Your task to perform on an android device: turn on improve location accuracy Image 0: 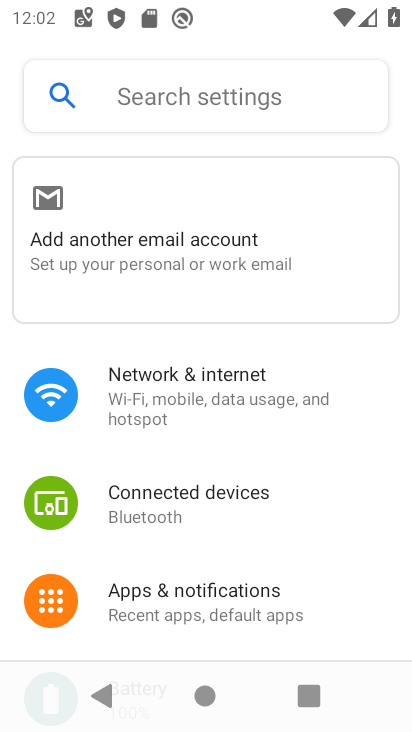
Step 0: press home button
Your task to perform on an android device: turn on improve location accuracy Image 1: 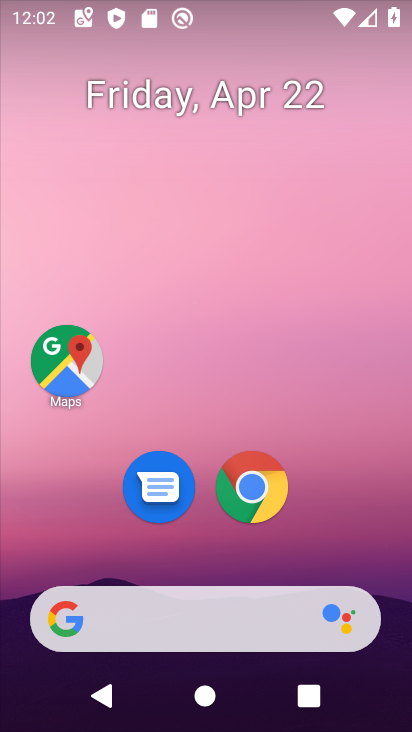
Step 1: drag from (205, 560) to (213, 75)
Your task to perform on an android device: turn on improve location accuracy Image 2: 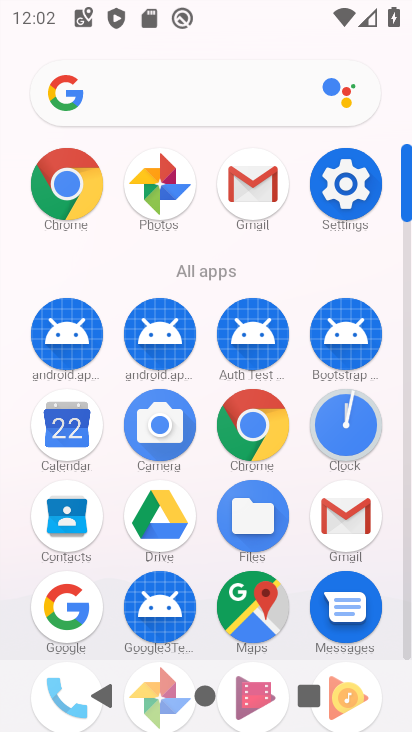
Step 2: drag from (315, 555) to (276, 129)
Your task to perform on an android device: turn on improve location accuracy Image 3: 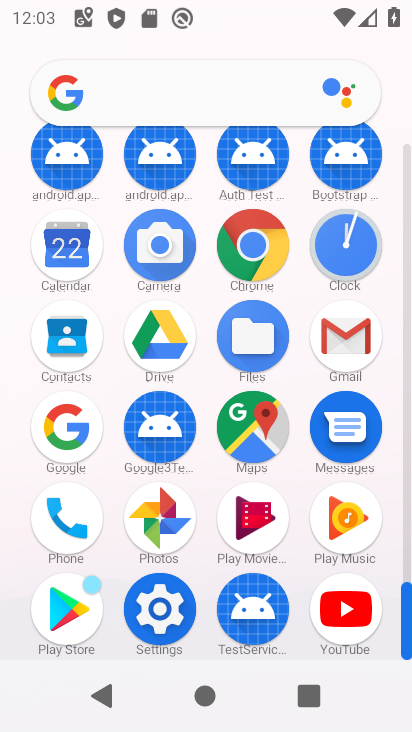
Step 3: click (264, 426)
Your task to perform on an android device: turn on improve location accuracy Image 4: 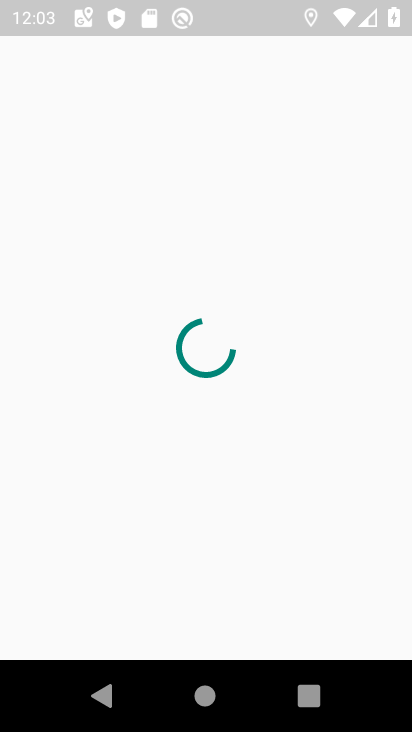
Step 4: click (62, 86)
Your task to perform on an android device: turn on improve location accuracy Image 5: 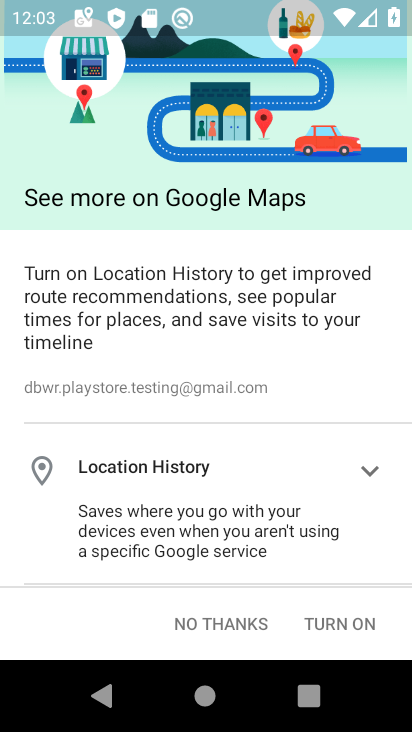
Step 5: click (330, 639)
Your task to perform on an android device: turn on improve location accuracy Image 6: 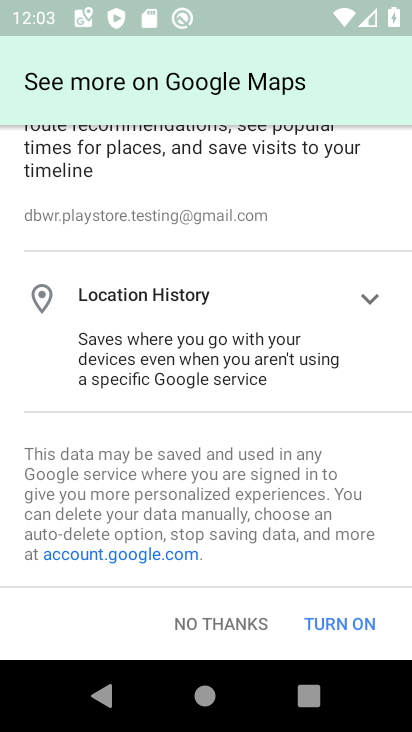
Step 6: click (330, 639)
Your task to perform on an android device: turn on improve location accuracy Image 7: 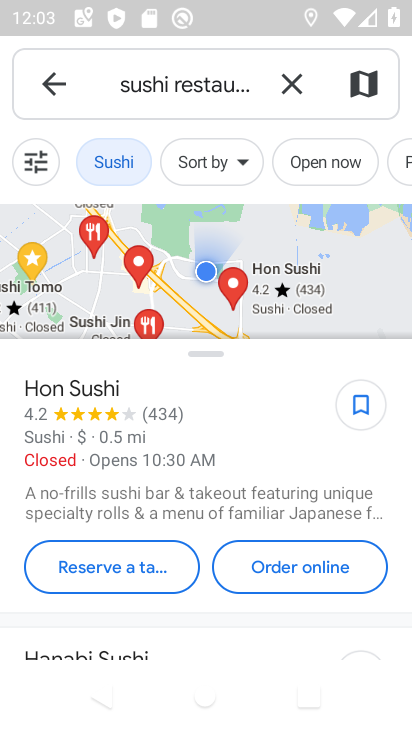
Step 7: click (60, 74)
Your task to perform on an android device: turn on improve location accuracy Image 8: 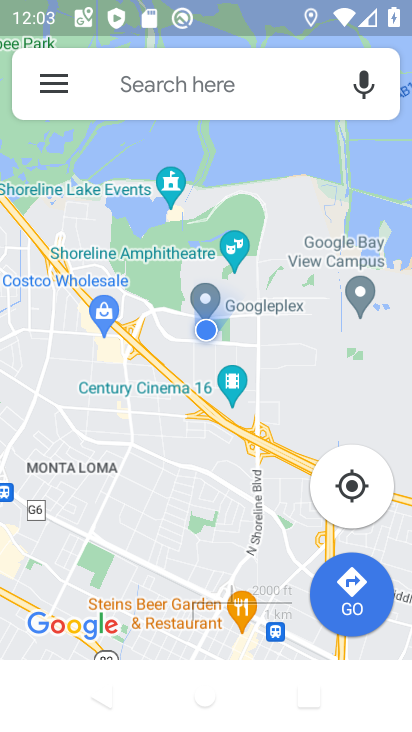
Step 8: click (60, 74)
Your task to perform on an android device: turn on improve location accuracy Image 9: 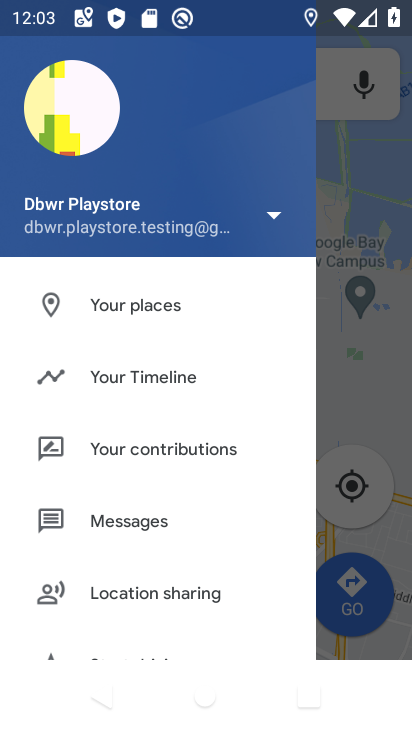
Step 9: drag from (106, 621) to (150, 2)
Your task to perform on an android device: turn on improve location accuracy Image 10: 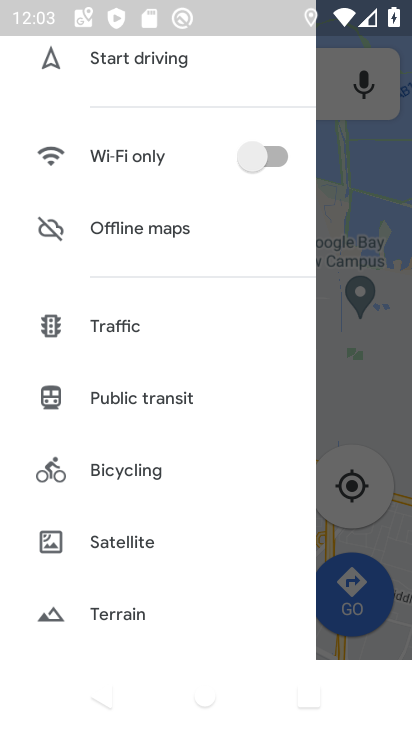
Step 10: drag from (119, 586) to (106, 11)
Your task to perform on an android device: turn on improve location accuracy Image 11: 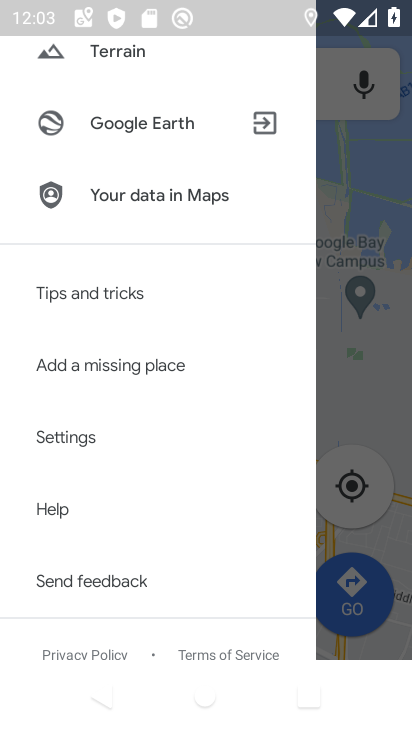
Step 11: click (58, 453)
Your task to perform on an android device: turn on improve location accuracy Image 12: 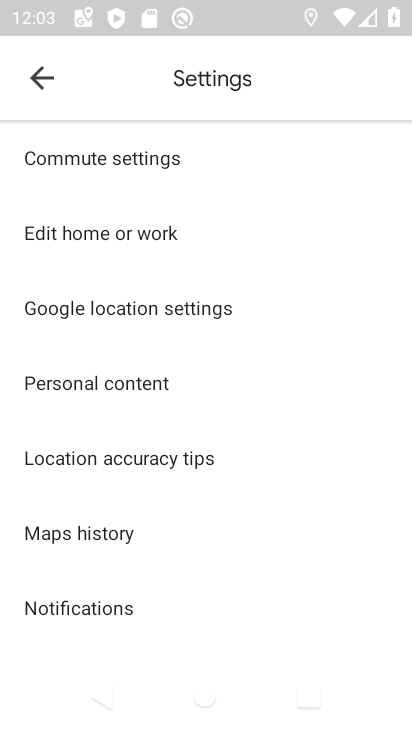
Step 12: drag from (59, 518) to (122, 158)
Your task to perform on an android device: turn on improve location accuracy Image 13: 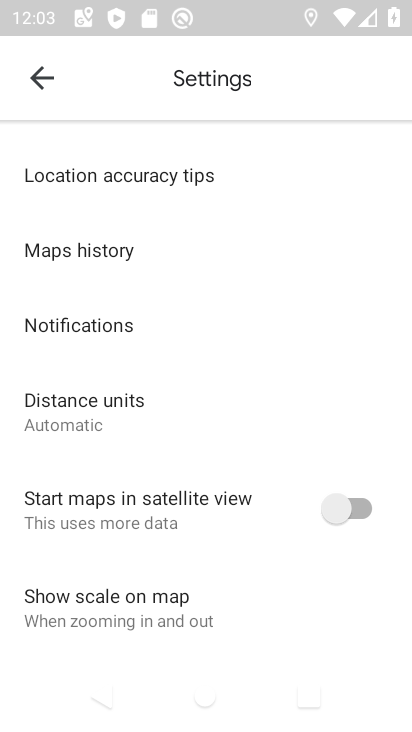
Step 13: drag from (73, 114) to (157, 653)
Your task to perform on an android device: turn on improve location accuracy Image 14: 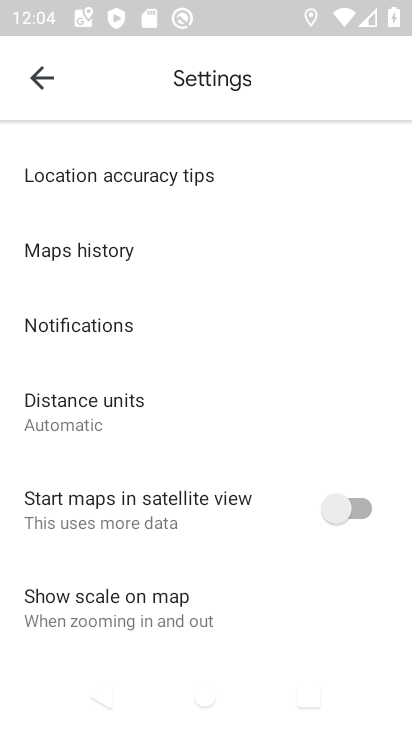
Step 14: drag from (156, 242) to (213, 680)
Your task to perform on an android device: turn on improve location accuracy Image 15: 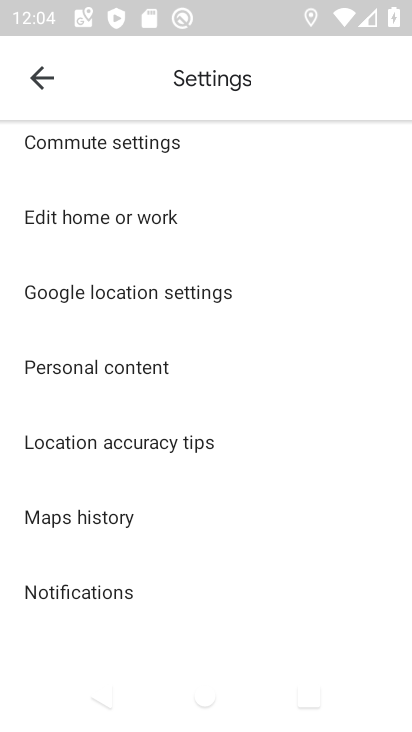
Step 15: press home button
Your task to perform on an android device: turn on improve location accuracy Image 16: 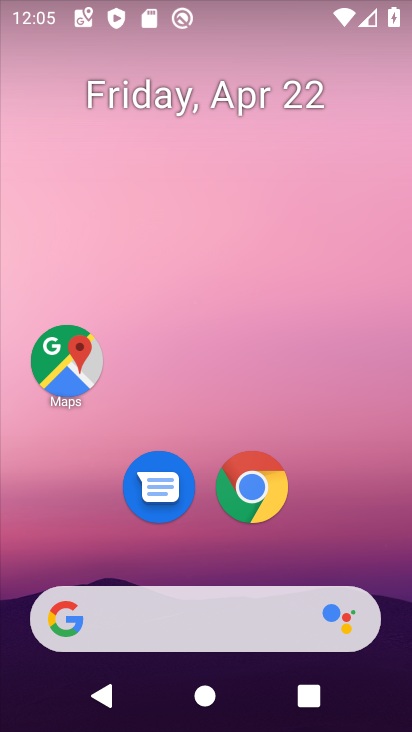
Step 16: drag from (213, 551) to (226, 142)
Your task to perform on an android device: turn on improve location accuracy Image 17: 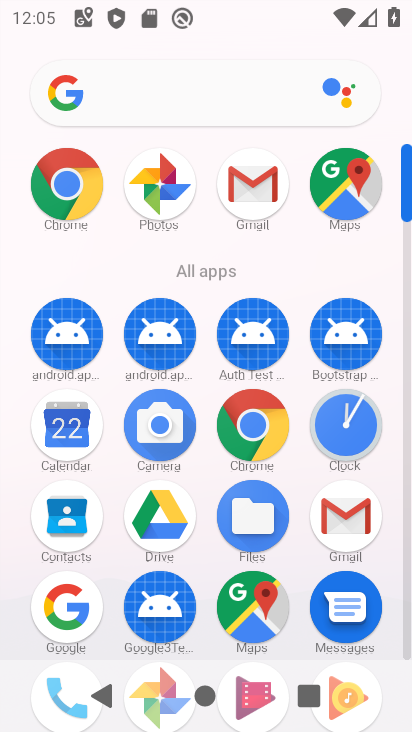
Step 17: drag from (103, 465) to (124, 6)
Your task to perform on an android device: turn on improve location accuracy Image 18: 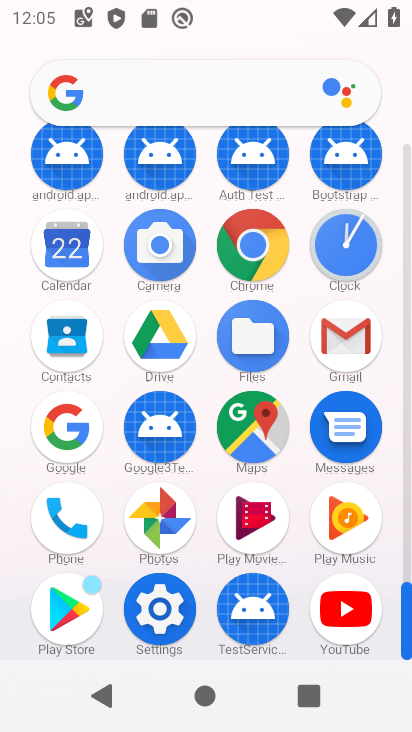
Step 18: click (171, 598)
Your task to perform on an android device: turn on improve location accuracy Image 19: 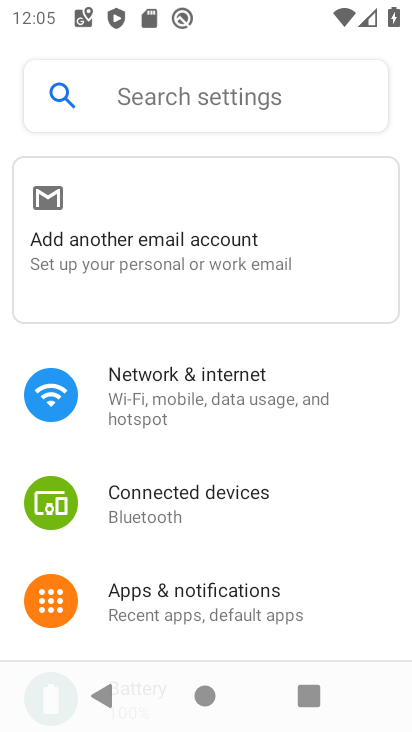
Step 19: drag from (171, 598) to (247, 9)
Your task to perform on an android device: turn on improve location accuracy Image 20: 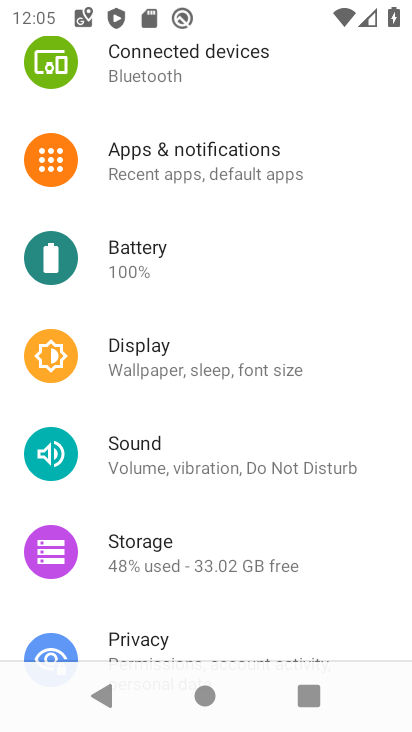
Step 20: drag from (194, 104) to (244, 597)
Your task to perform on an android device: turn on improve location accuracy Image 21: 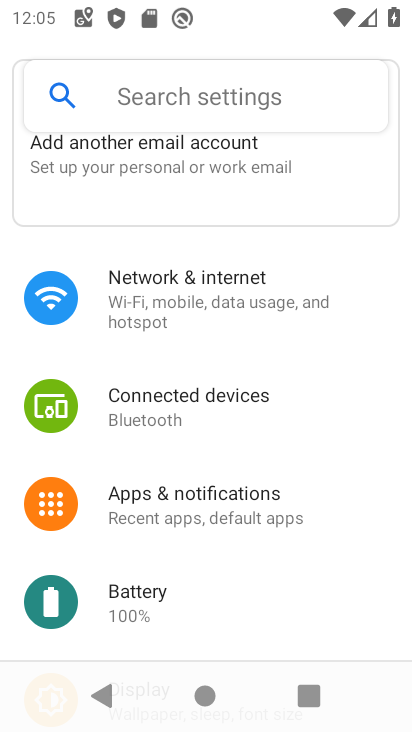
Step 21: drag from (201, 555) to (218, 68)
Your task to perform on an android device: turn on improve location accuracy Image 22: 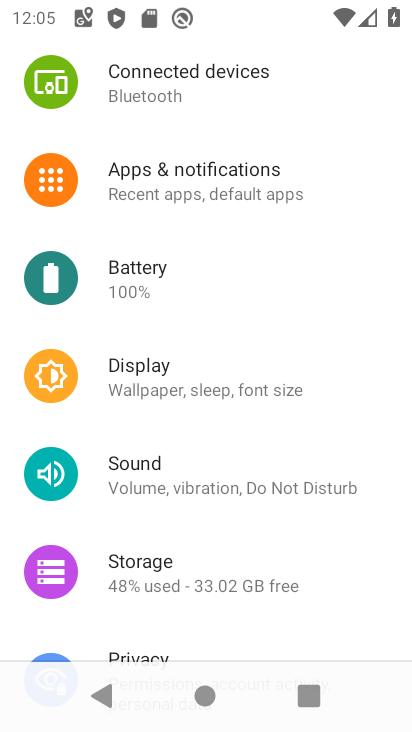
Step 22: drag from (129, 506) to (150, 34)
Your task to perform on an android device: turn on improve location accuracy Image 23: 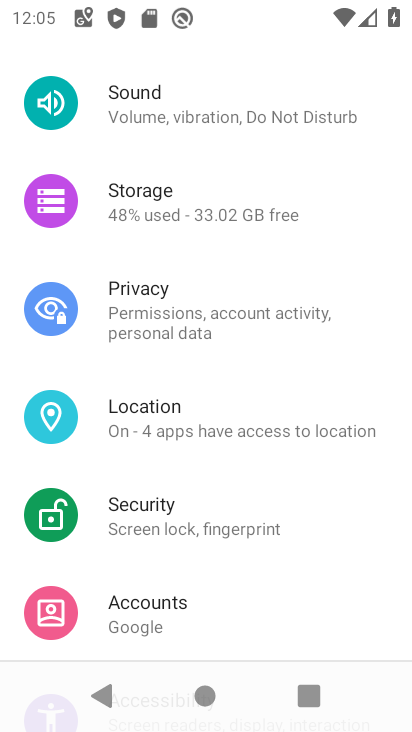
Step 23: click (274, 423)
Your task to perform on an android device: turn on improve location accuracy Image 24: 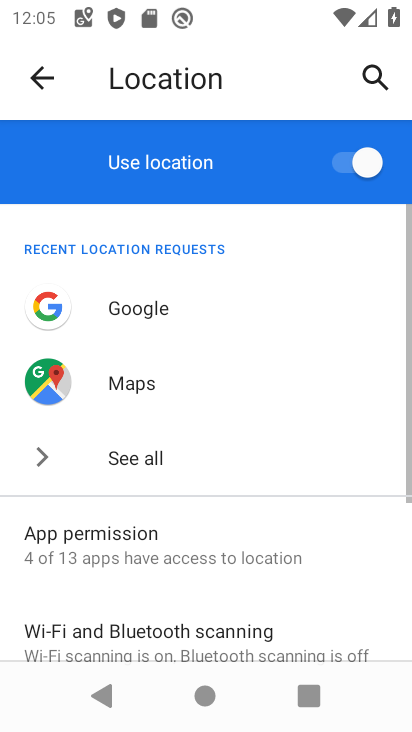
Step 24: drag from (115, 540) to (127, 61)
Your task to perform on an android device: turn on improve location accuracy Image 25: 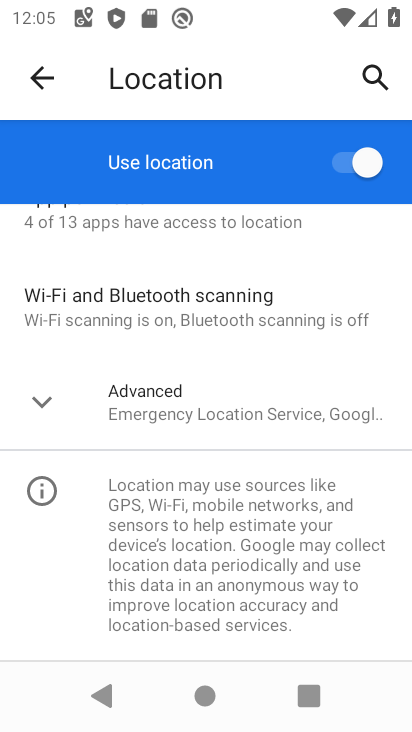
Step 25: click (249, 415)
Your task to perform on an android device: turn on improve location accuracy Image 26: 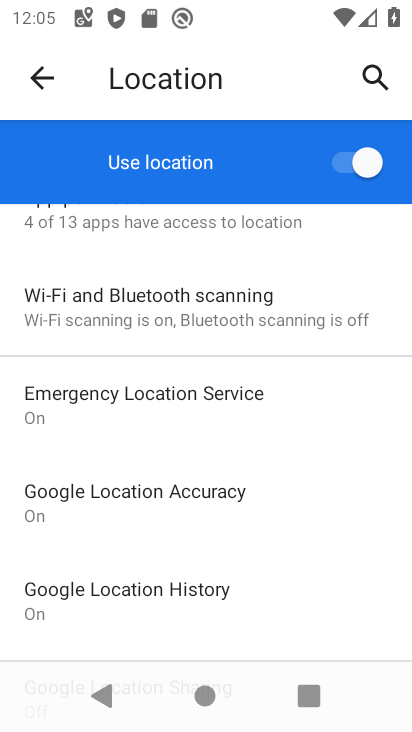
Step 26: click (102, 509)
Your task to perform on an android device: turn on improve location accuracy Image 27: 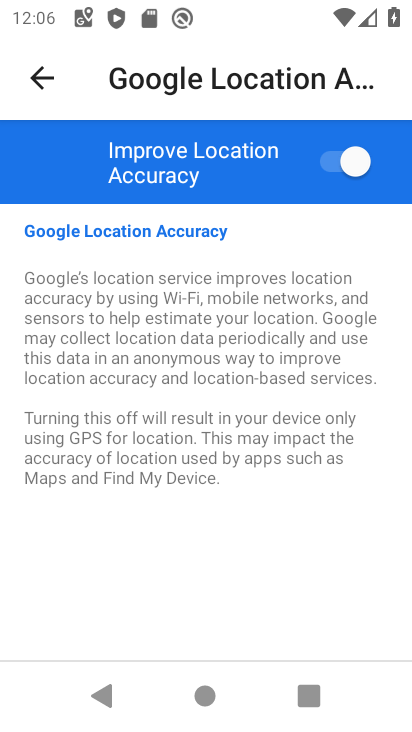
Step 27: task complete